Your task to perform on an android device: turn notification dots off Image 0: 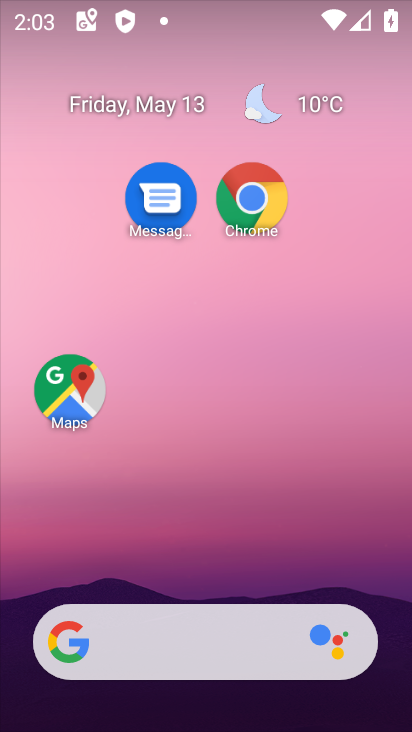
Step 0: drag from (200, 596) to (152, 3)
Your task to perform on an android device: turn notification dots off Image 1: 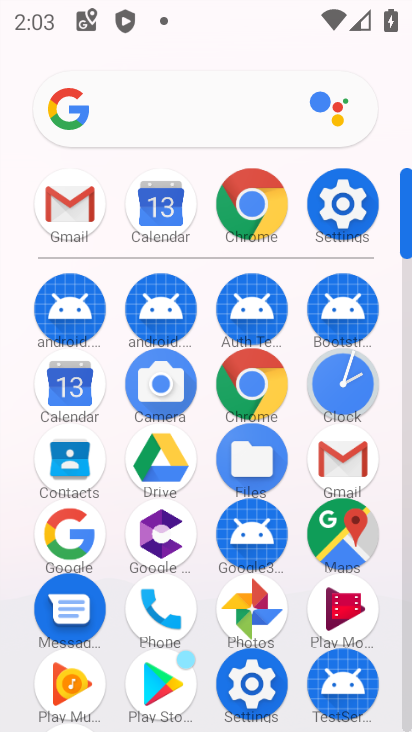
Step 1: click (331, 194)
Your task to perform on an android device: turn notification dots off Image 2: 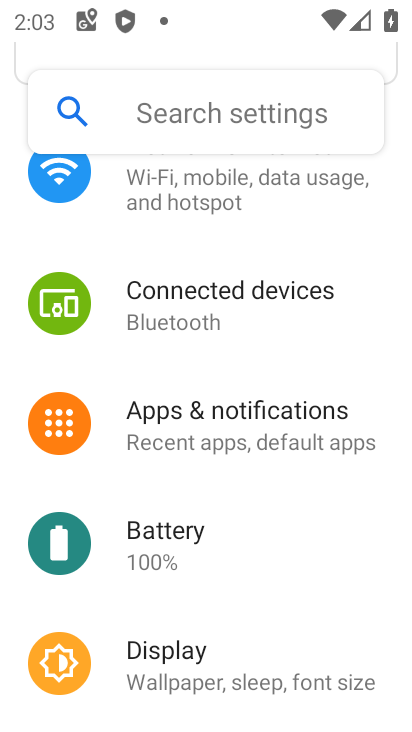
Step 2: click (300, 427)
Your task to perform on an android device: turn notification dots off Image 3: 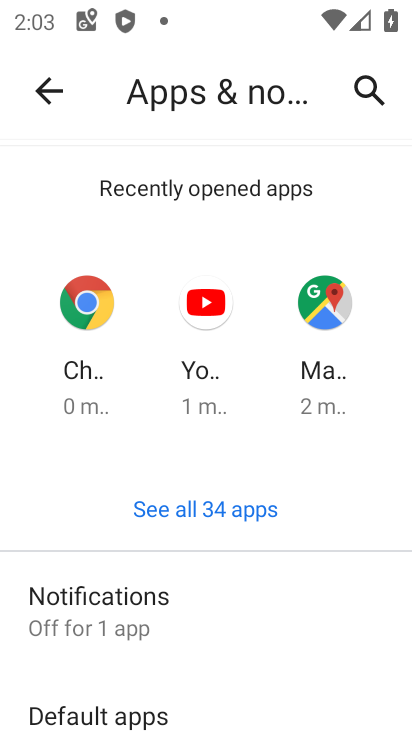
Step 3: click (171, 588)
Your task to perform on an android device: turn notification dots off Image 4: 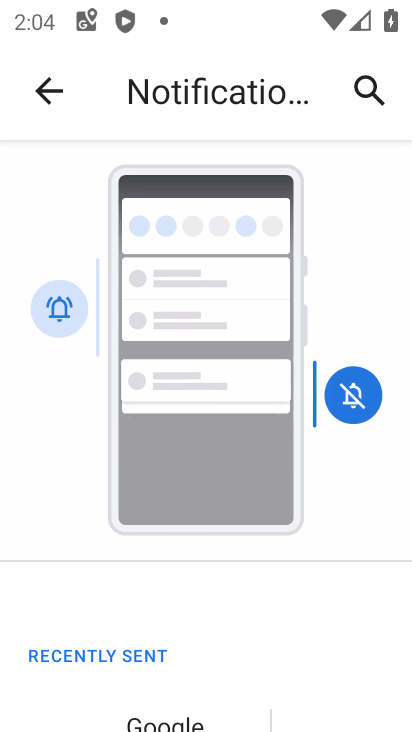
Step 4: drag from (285, 624) to (236, 134)
Your task to perform on an android device: turn notification dots off Image 5: 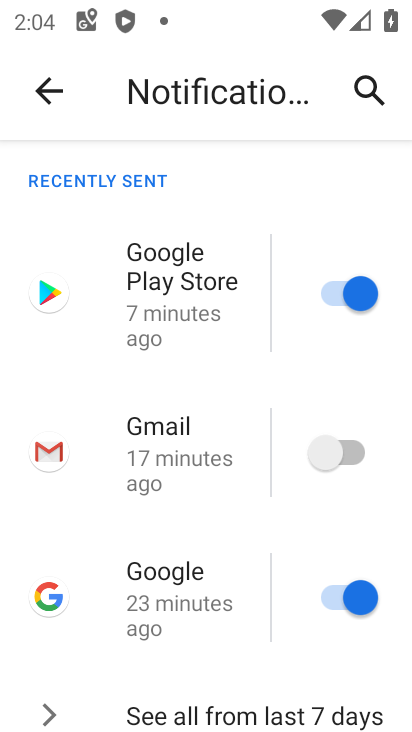
Step 5: drag from (227, 670) to (226, 282)
Your task to perform on an android device: turn notification dots off Image 6: 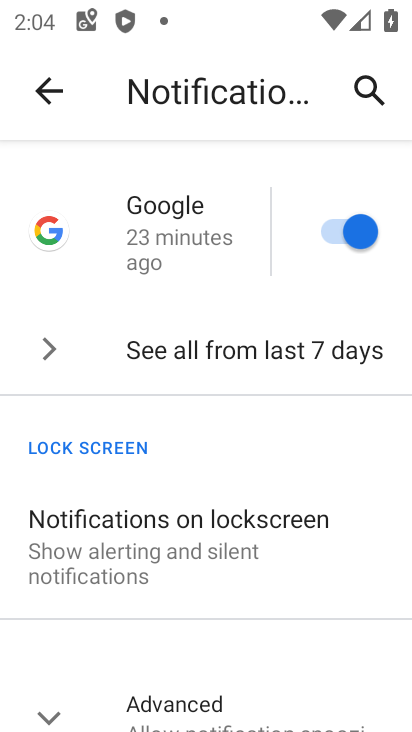
Step 6: drag from (186, 680) to (118, 210)
Your task to perform on an android device: turn notification dots off Image 7: 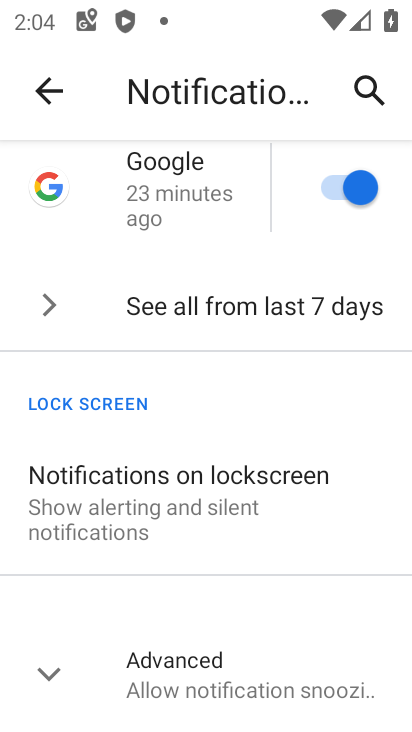
Step 7: click (193, 679)
Your task to perform on an android device: turn notification dots off Image 8: 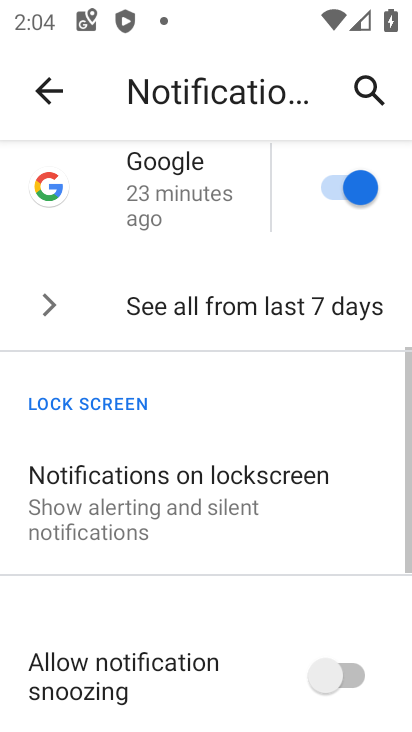
Step 8: drag from (213, 666) to (212, 289)
Your task to perform on an android device: turn notification dots off Image 9: 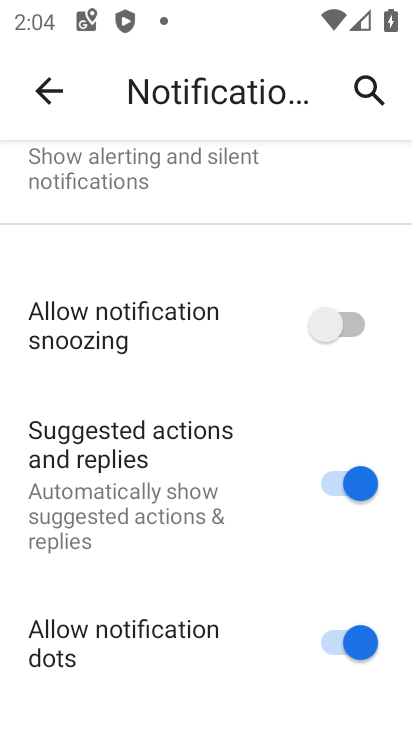
Step 9: click (347, 645)
Your task to perform on an android device: turn notification dots off Image 10: 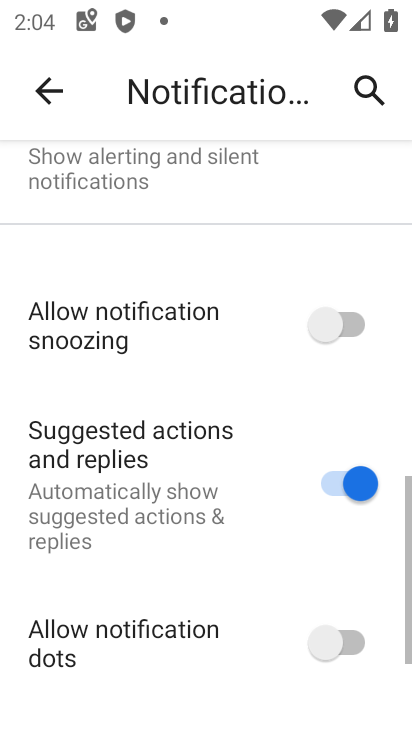
Step 10: task complete